Your task to perform on an android device: change the clock display to digital Image 0: 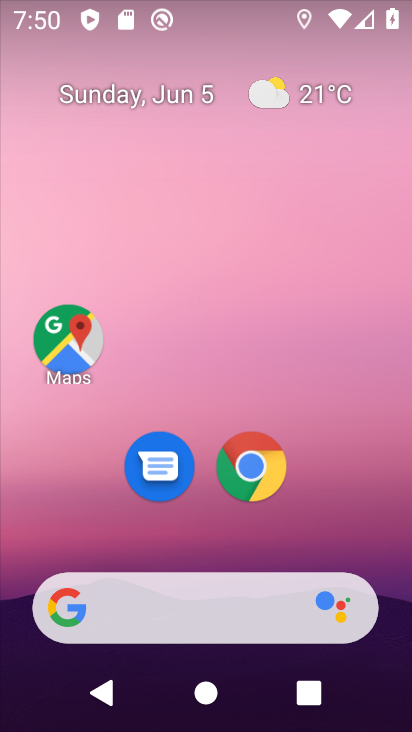
Step 0: drag from (202, 524) to (295, 176)
Your task to perform on an android device: change the clock display to digital Image 1: 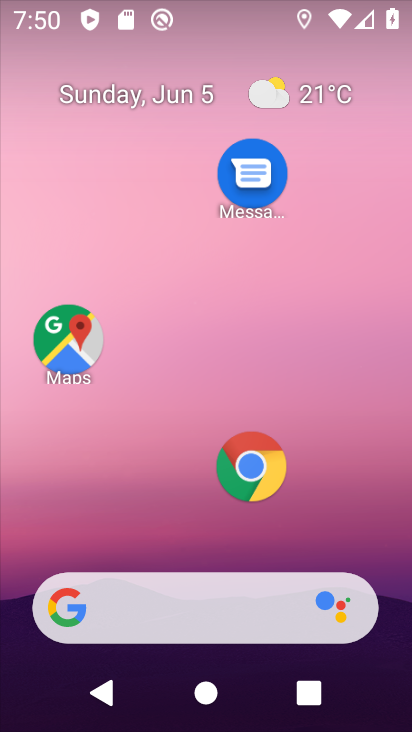
Step 1: drag from (213, 501) to (248, 2)
Your task to perform on an android device: change the clock display to digital Image 2: 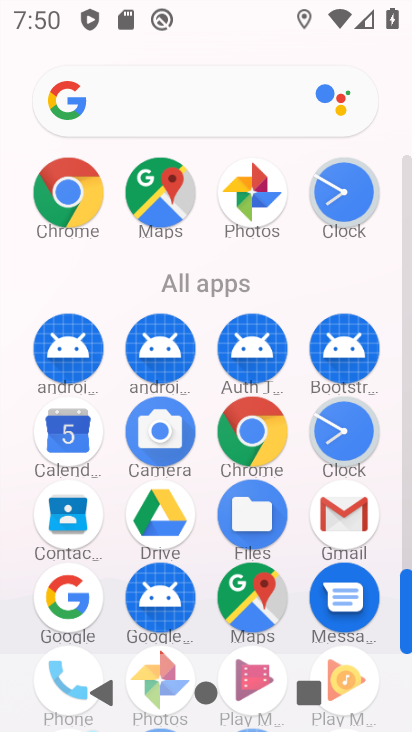
Step 2: click (363, 412)
Your task to perform on an android device: change the clock display to digital Image 3: 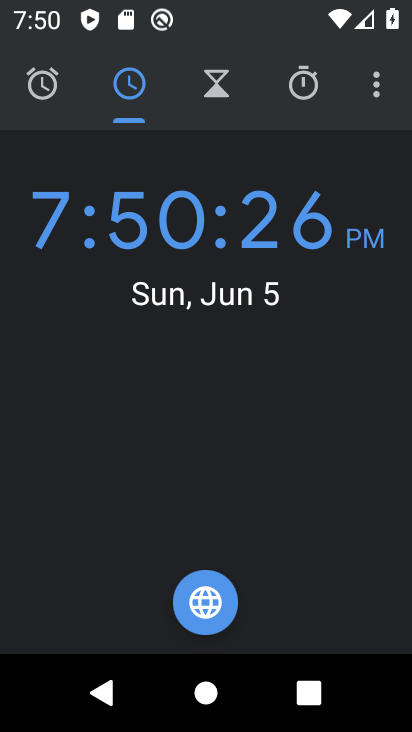
Step 3: click (384, 84)
Your task to perform on an android device: change the clock display to digital Image 4: 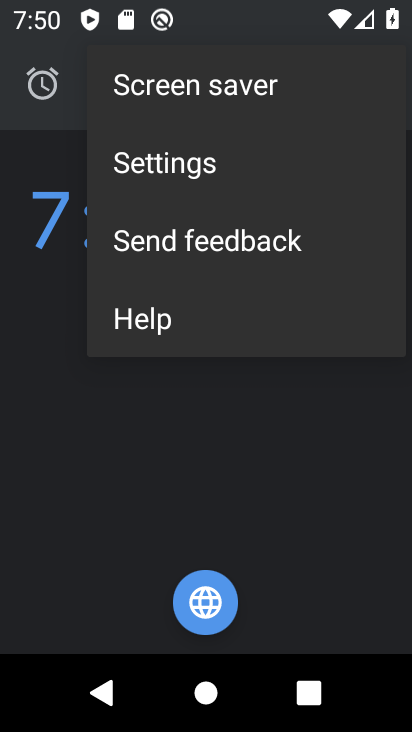
Step 4: click (218, 160)
Your task to perform on an android device: change the clock display to digital Image 5: 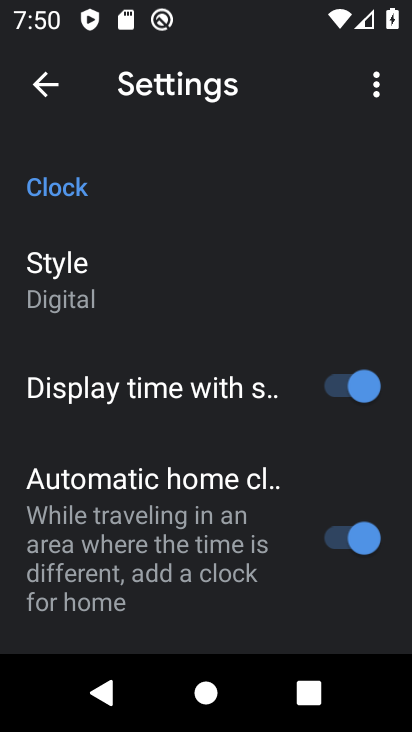
Step 5: click (98, 295)
Your task to perform on an android device: change the clock display to digital Image 6: 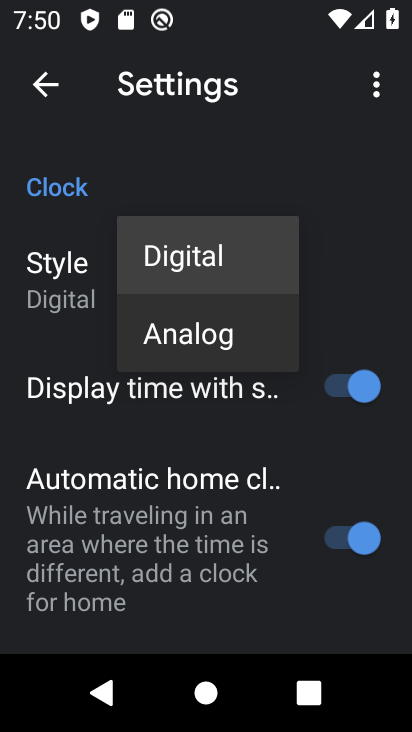
Step 6: click (220, 269)
Your task to perform on an android device: change the clock display to digital Image 7: 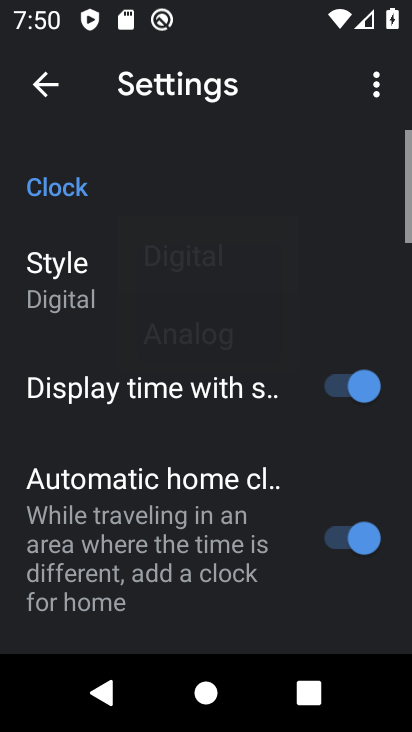
Step 7: task complete